Your task to perform on an android device: Open Google Chrome Image 0: 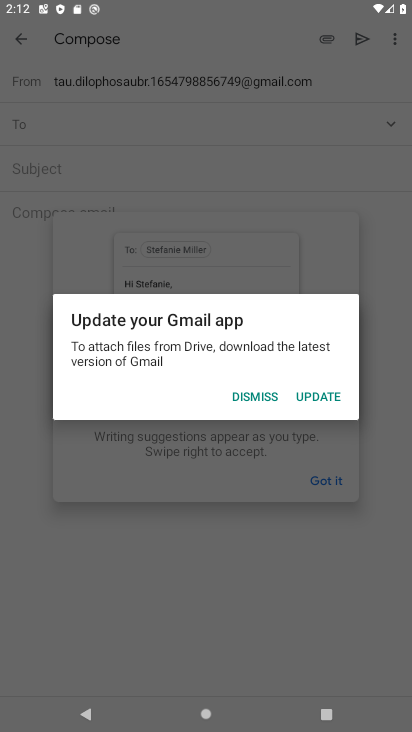
Step 0: click (258, 391)
Your task to perform on an android device: Open Google Chrome Image 1: 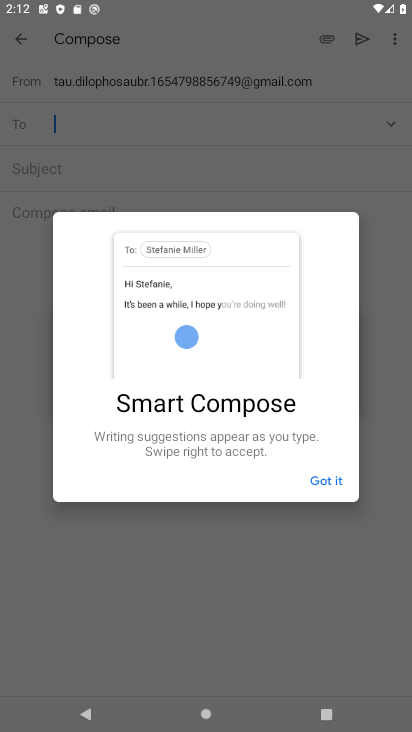
Step 1: click (322, 478)
Your task to perform on an android device: Open Google Chrome Image 2: 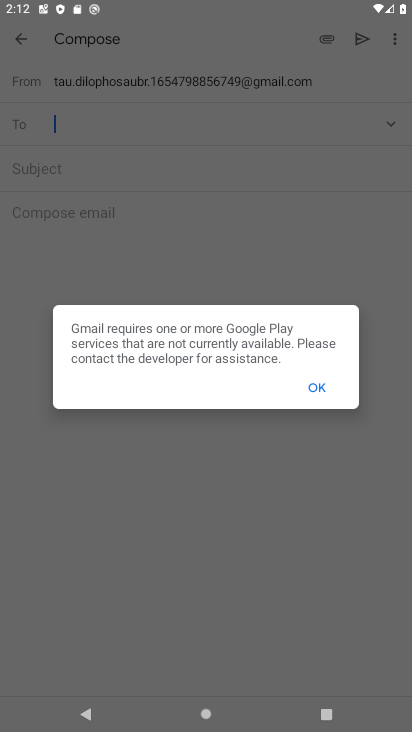
Step 2: click (329, 388)
Your task to perform on an android device: Open Google Chrome Image 3: 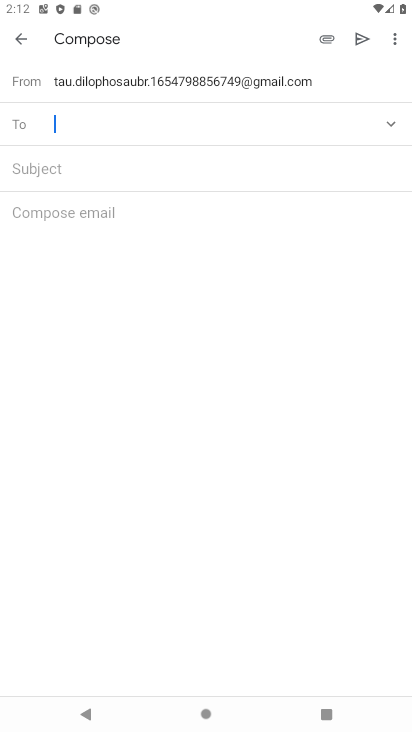
Step 3: press home button
Your task to perform on an android device: Open Google Chrome Image 4: 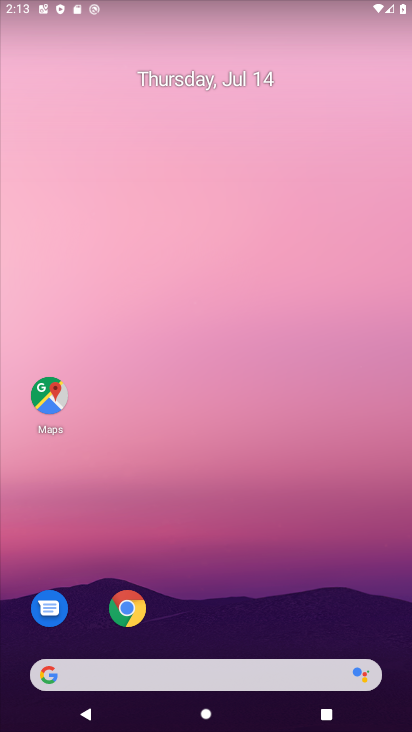
Step 4: click (117, 609)
Your task to perform on an android device: Open Google Chrome Image 5: 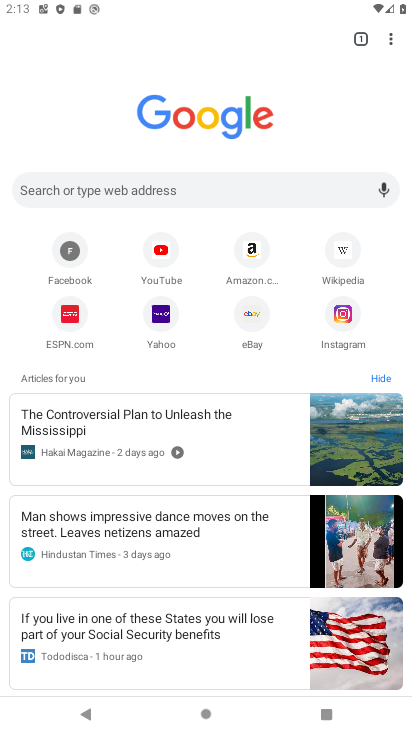
Step 5: task complete